Your task to perform on an android device: delete a single message in the gmail app Image 0: 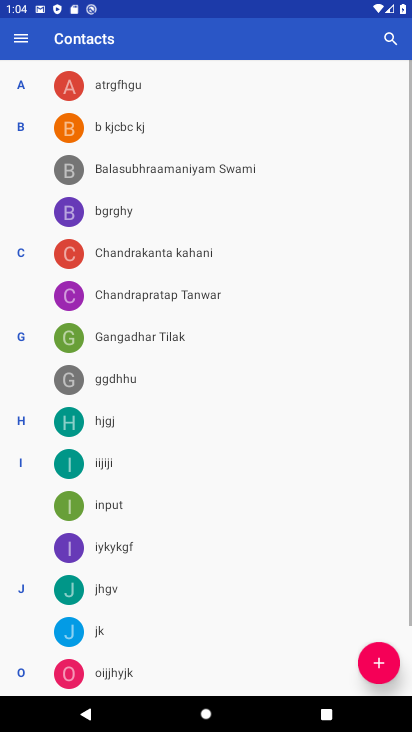
Step 0: press home button
Your task to perform on an android device: delete a single message in the gmail app Image 1: 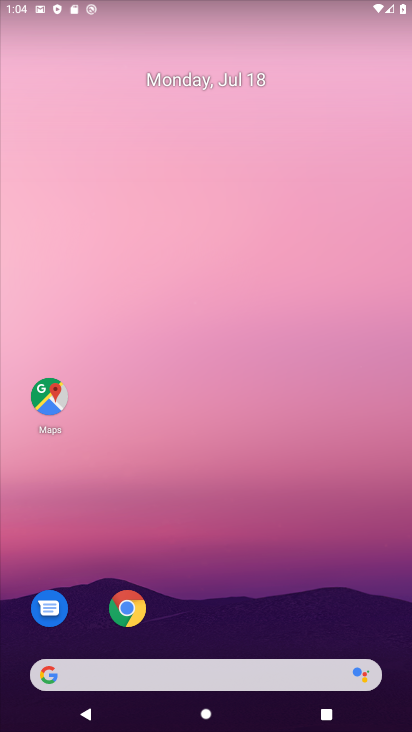
Step 1: drag from (226, 547) to (230, 90)
Your task to perform on an android device: delete a single message in the gmail app Image 2: 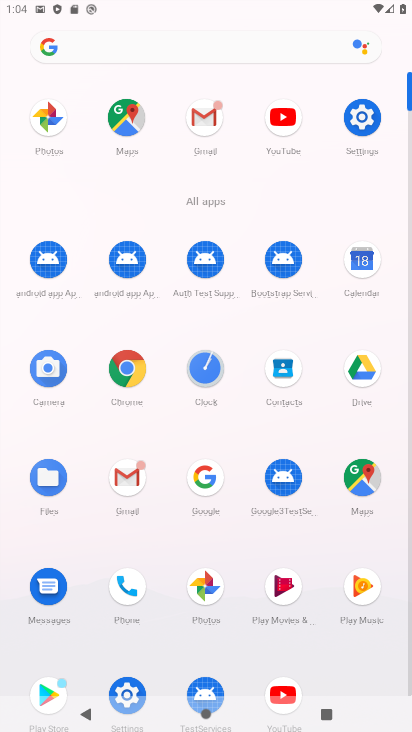
Step 2: click (116, 488)
Your task to perform on an android device: delete a single message in the gmail app Image 3: 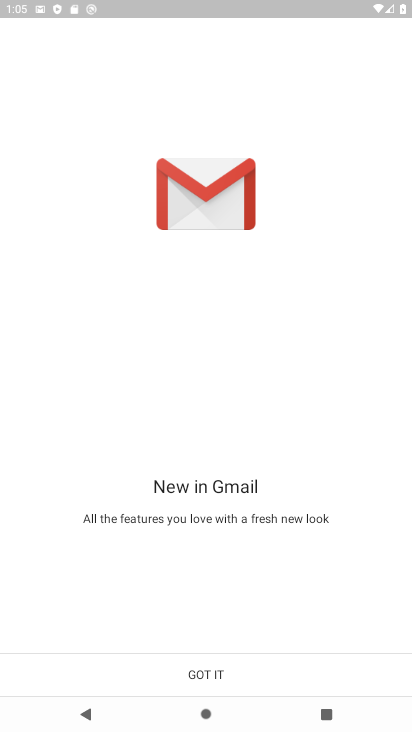
Step 3: click (213, 671)
Your task to perform on an android device: delete a single message in the gmail app Image 4: 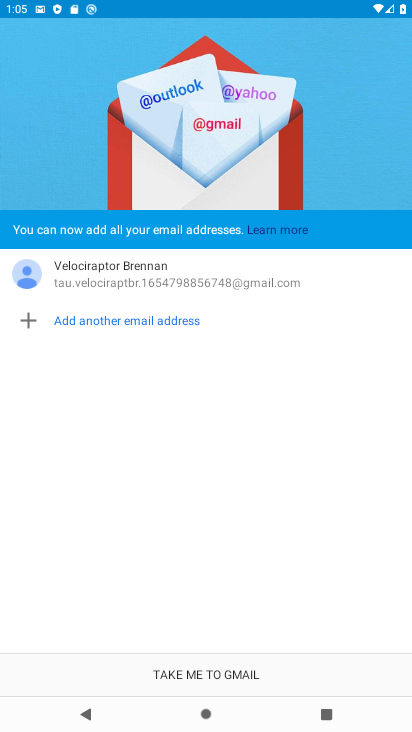
Step 4: click (213, 671)
Your task to perform on an android device: delete a single message in the gmail app Image 5: 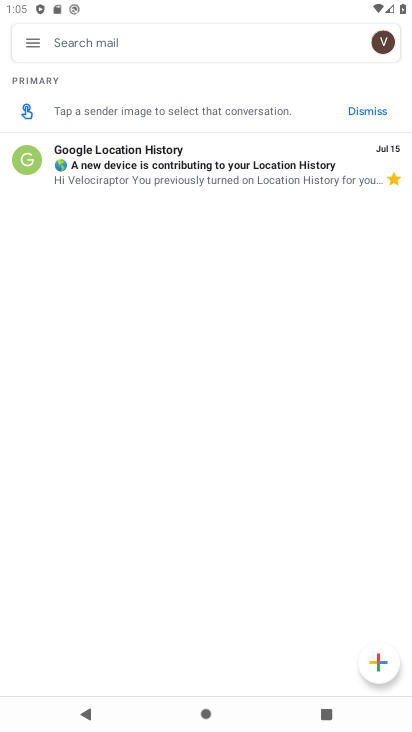
Step 5: click (165, 177)
Your task to perform on an android device: delete a single message in the gmail app Image 6: 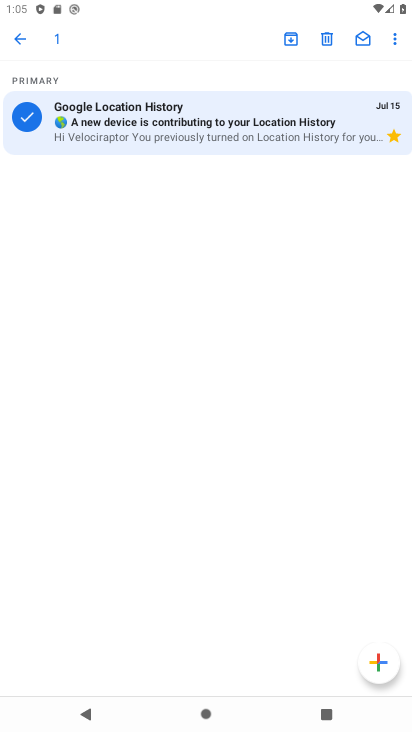
Step 6: click (325, 39)
Your task to perform on an android device: delete a single message in the gmail app Image 7: 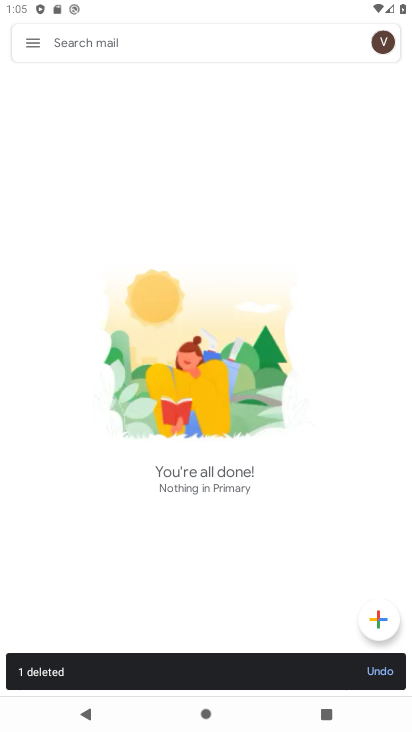
Step 7: task complete